Your task to perform on an android device: Search for Italian restaurants on Maps Image 0: 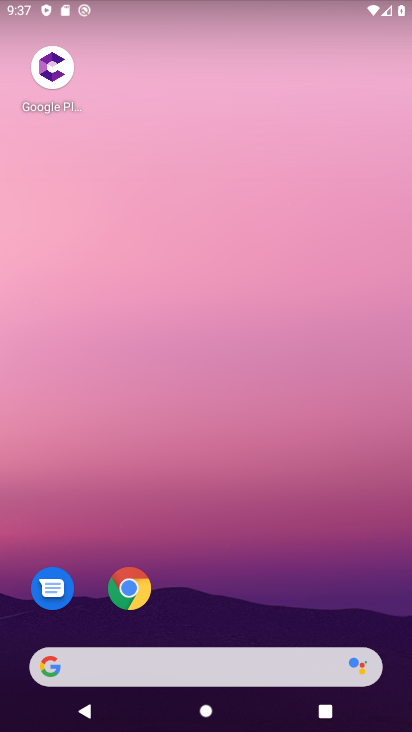
Step 0: drag from (209, 587) to (267, 23)
Your task to perform on an android device: Search for Italian restaurants on Maps Image 1: 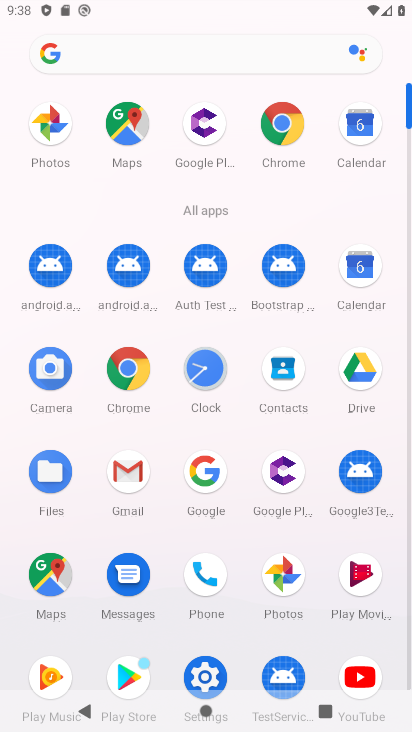
Step 1: click (128, 123)
Your task to perform on an android device: Search for Italian restaurants on Maps Image 2: 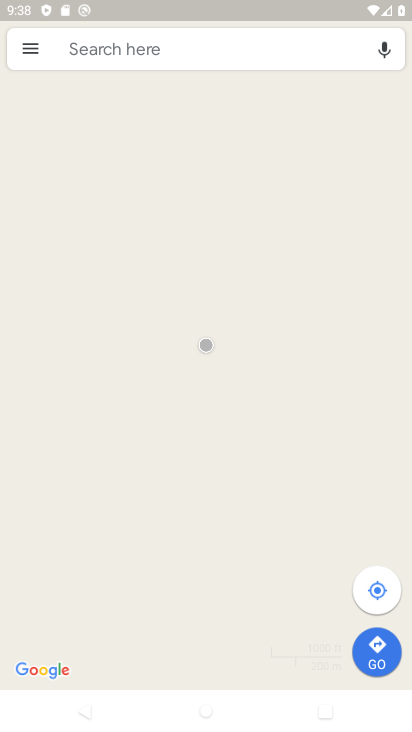
Step 2: click (126, 48)
Your task to perform on an android device: Search for Italian restaurants on Maps Image 3: 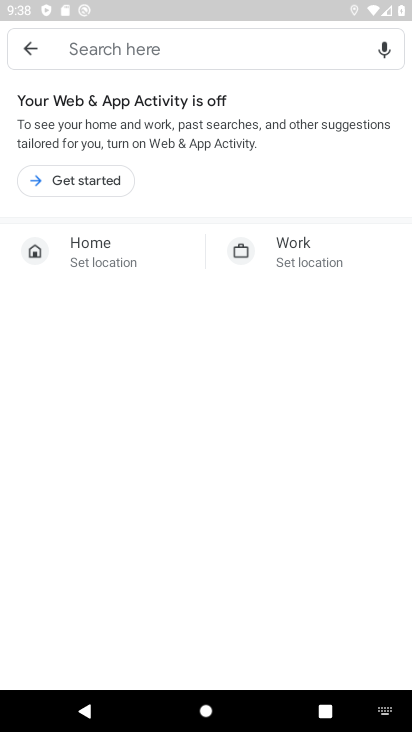
Step 3: click (137, 47)
Your task to perform on an android device: Search for Italian restaurants on Maps Image 4: 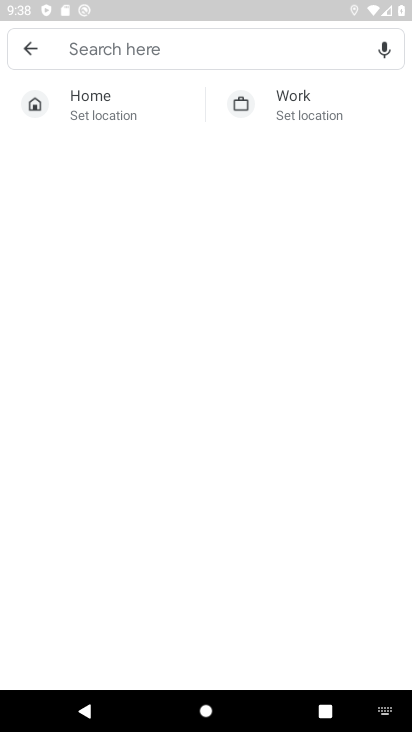
Step 4: type "italian restaurants"
Your task to perform on an android device: Search for Italian restaurants on Maps Image 5: 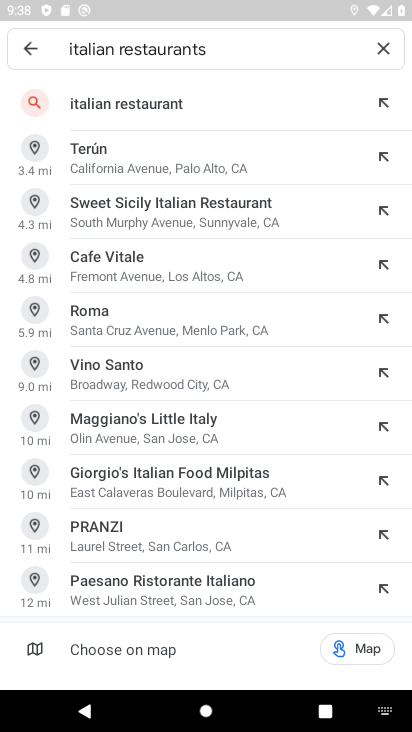
Step 5: click (211, 115)
Your task to perform on an android device: Search for Italian restaurants on Maps Image 6: 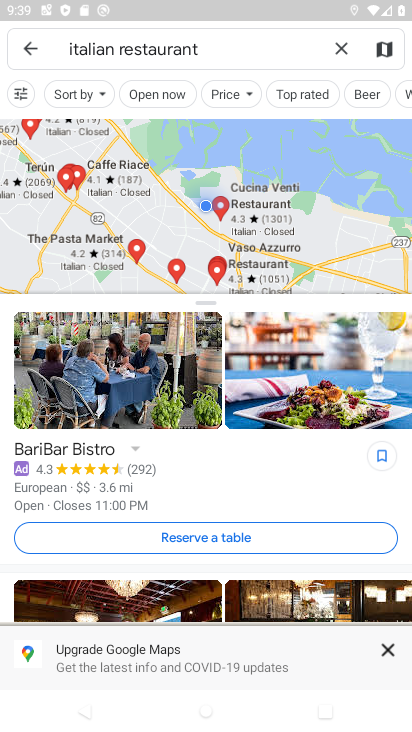
Step 6: task complete